Your task to perform on an android device: Go to location settings Image 0: 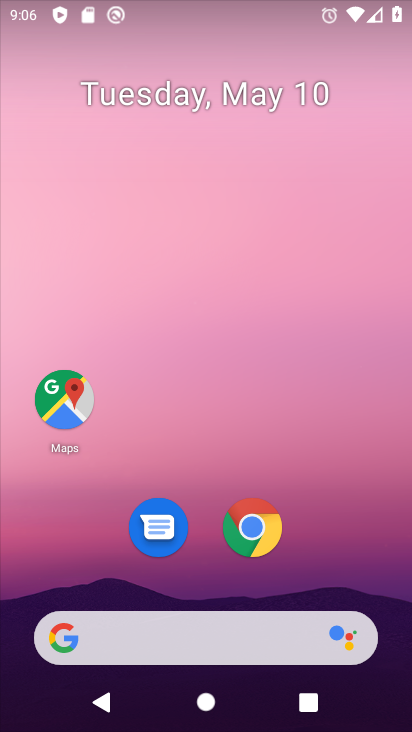
Step 0: drag from (182, 601) to (103, 21)
Your task to perform on an android device: Go to location settings Image 1: 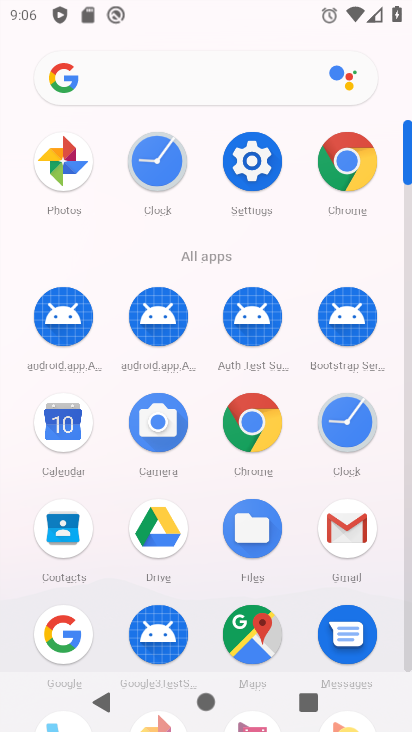
Step 1: click (268, 163)
Your task to perform on an android device: Go to location settings Image 2: 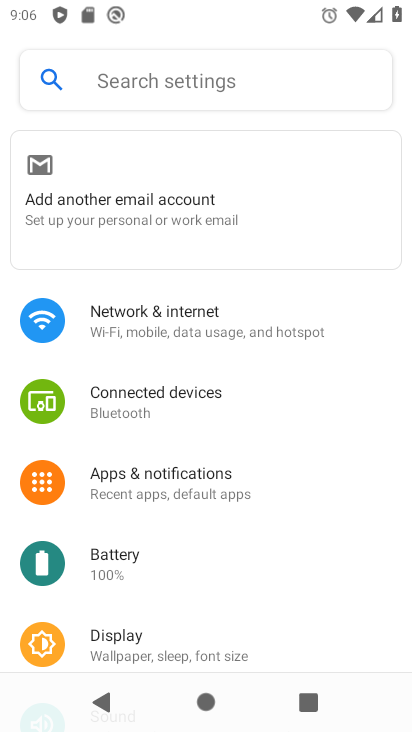
Step 2: drag from (247, 531) to (190, 159)
Your task to perform on an android device: Go to location settings Image 3: 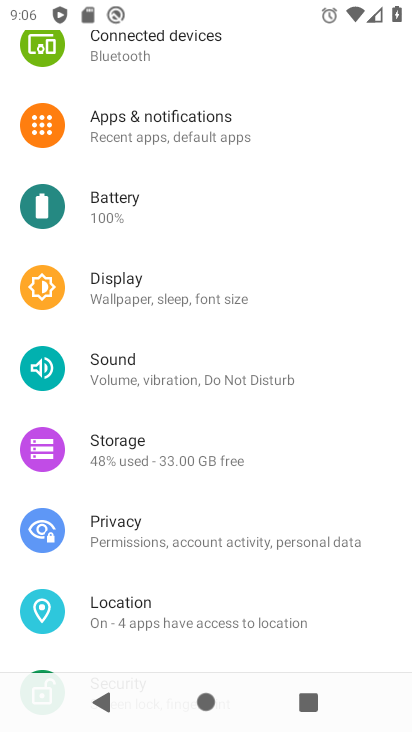
Step 3: click (172, 587)
Your task to perform on an android device: Go to location settings Image 4: 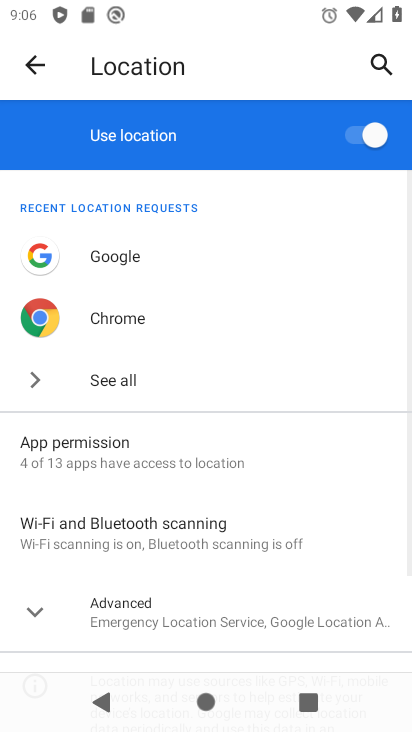
Step 4: click (134, 620)
Your task to perform on an android device: Go to location settings Image 5: 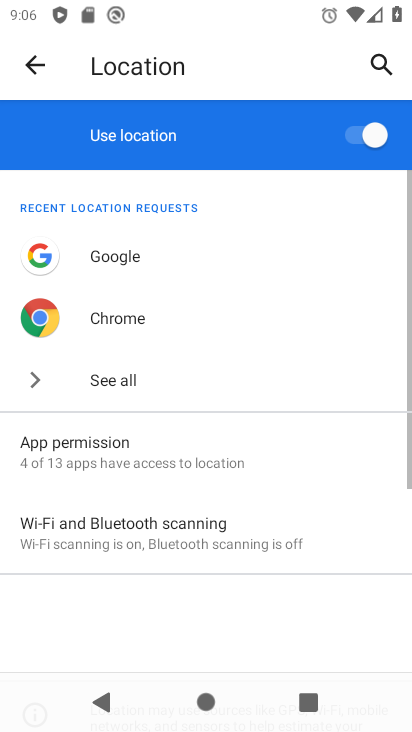
Step 5: task complete